Your task to perform on an android device: change the clock display to analog Image 0: 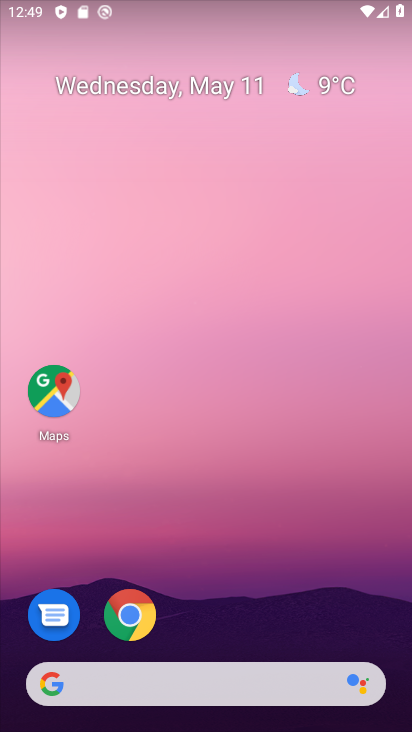
Step 0: click (332, 106)
Your task to perform on an android device: change the clock display to analog Image 1: 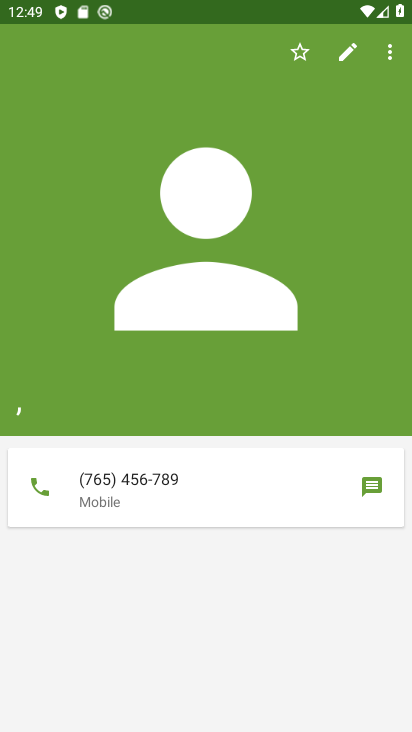
Step 1: press back button
Your task to perform on an android device: change the clock display to analog Image 2: 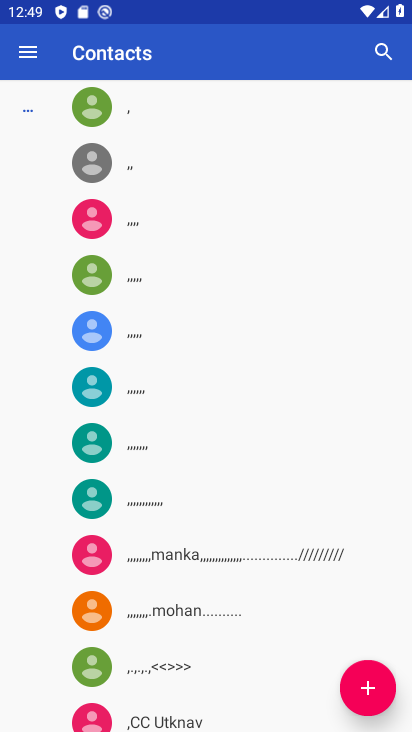
Step 2: press back button
Your task to perform on an android device: change the clock display to analog Image 3: 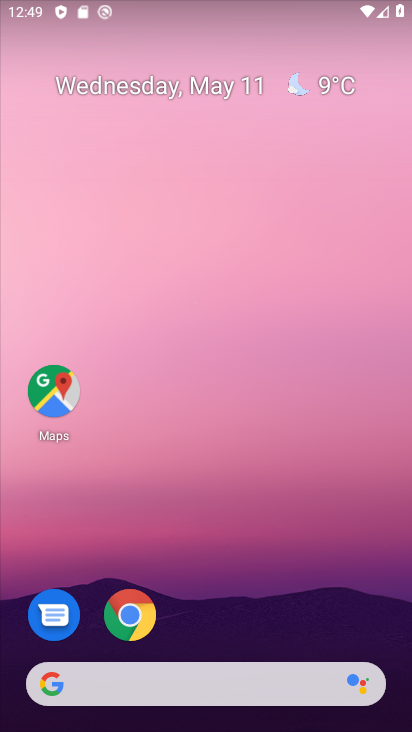
Step 3: drag from (199, 532) to (239, 190)
Your task to perform on an android device: change the clock display to analog Image 4: 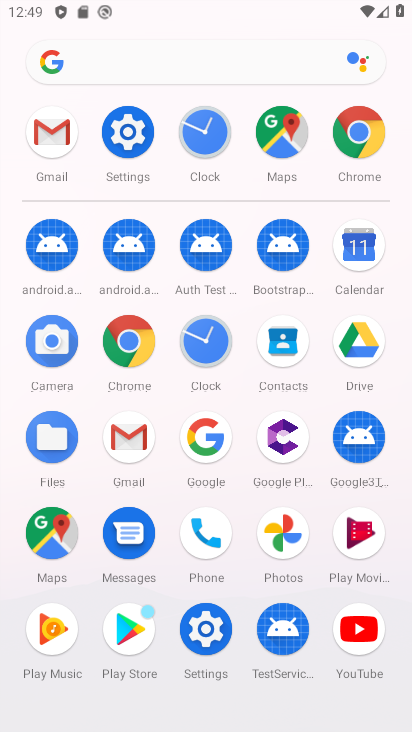
Step 4: click (193, 166)
Your task to perform on an android device: change the clock display to analog Image 5: 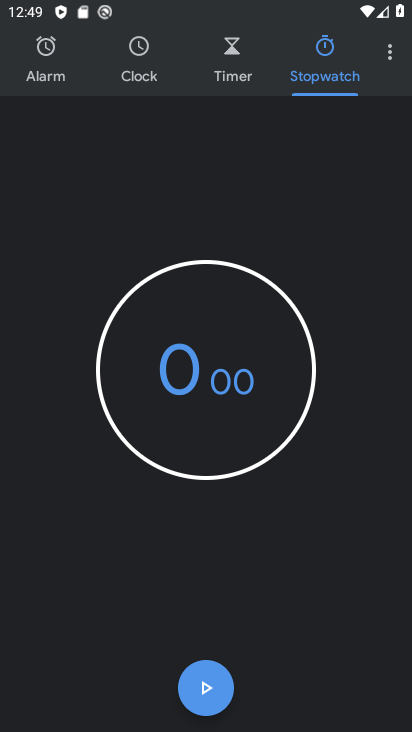
Step 5: click (387, 56)
Your task to perform on an android device: change the clock display to analog Image 6: 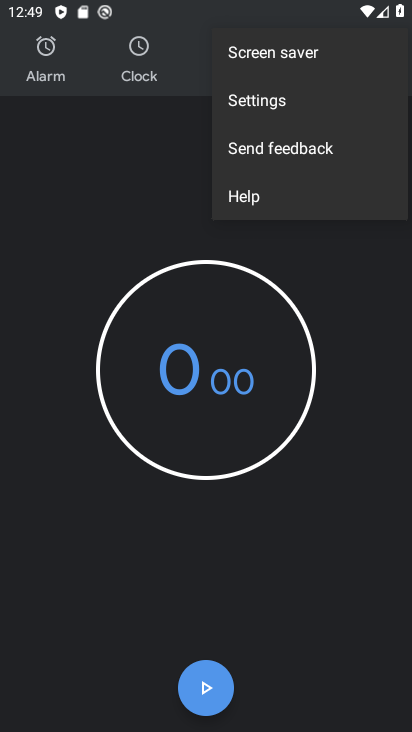
Step 6: click (292, 103)
Your task to perform on an android device: change the clock display to analog Image 7: 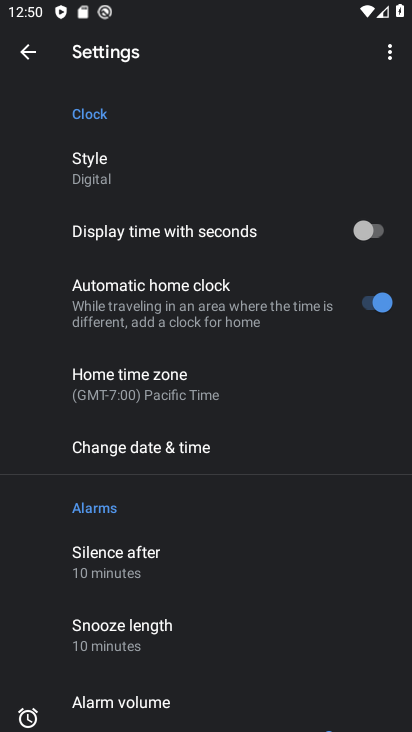
Step 7: click (154, 190)
Your task to perform on an android device: change the clock display to analog Image 8: 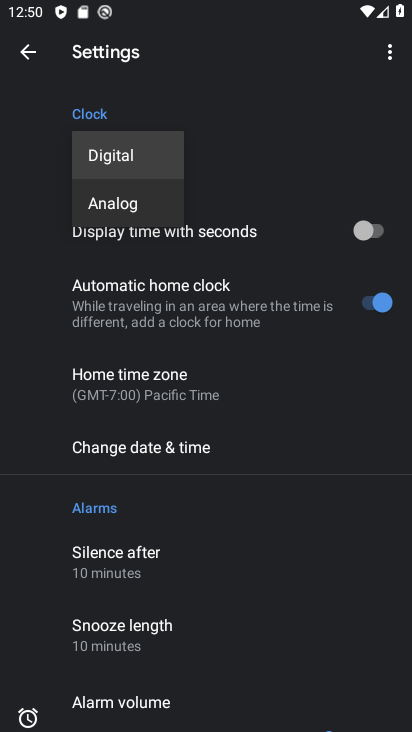
Step 8: click (152, 206)
Your task to perform on an android device: change the clock display to analog Image 9: 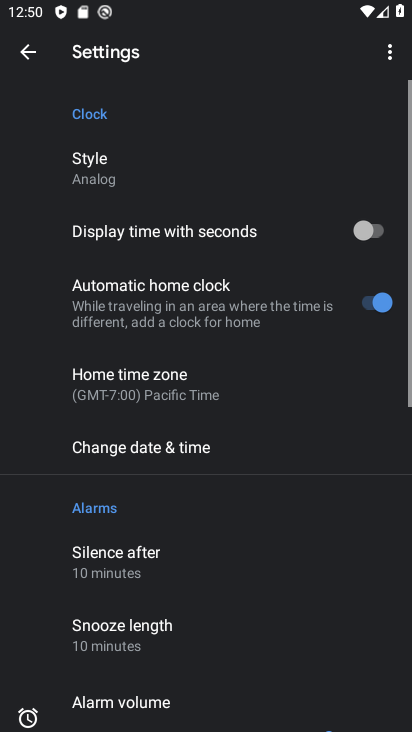
Step 9: task complete